Your task to perform on an android device: Open privacy settings Image 0: 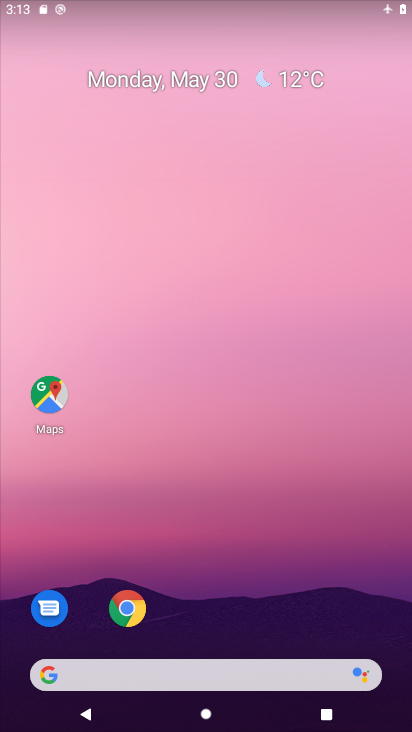
Step 0: drag from (283, 560) to (248, 13)
Your task to perform on an android device: Open privacy settings Image 1: 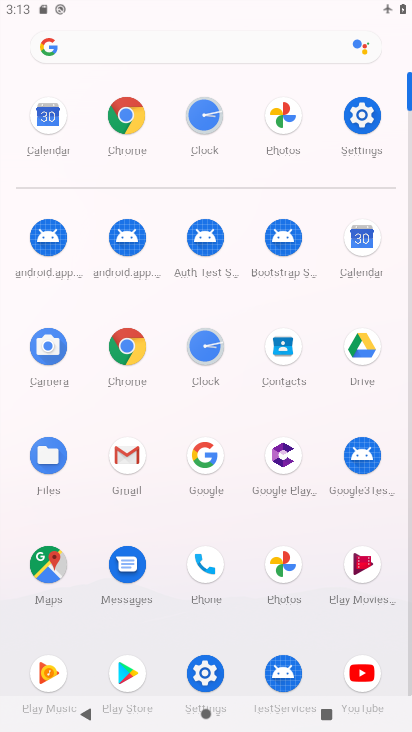
Step 1: click (365, 120)
Your task to perform on an android device: Open privacy settings Image 2: 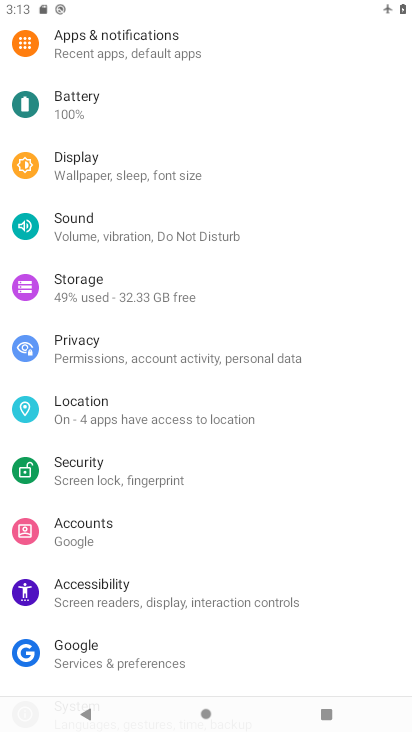
Step 2: click (157, 345)
Your task to perform on an android device: Open privacy settings Image 3: 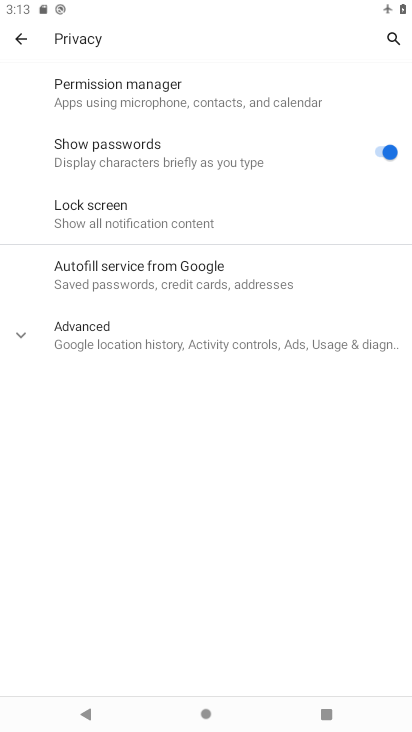
Step 3: task complete